Your task to perform on an android device: open app "Duolingo: language lessons" (install if not already installed) and go to login screen Image 0: 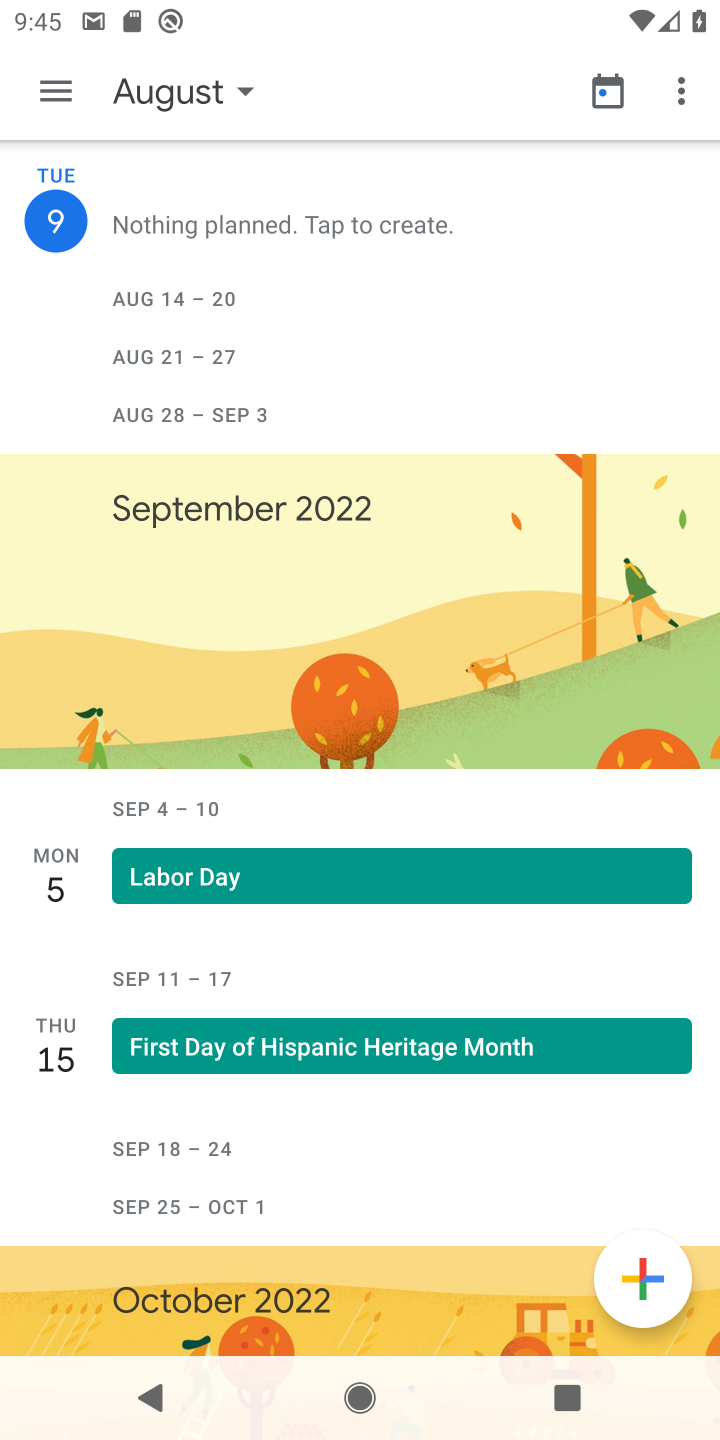
Step 0: press home button
Your task to perform on an android device: open app "Duolingo: language lessons" (install if not already installed) and go to login screen Image 1: 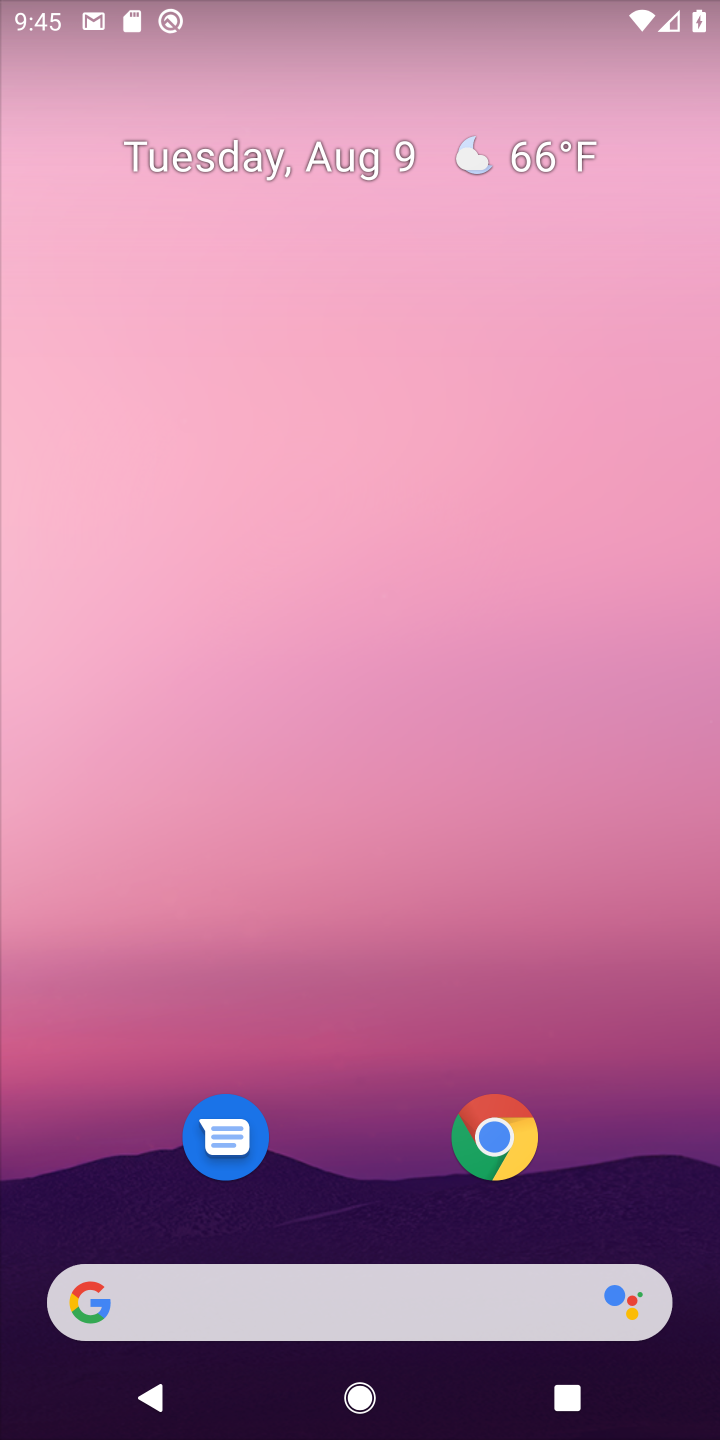
Step 1: drag from (371, 1116) to (354, 346)
Your task to perform on an android device: open app "Duolingo: language lessons" (install if not already installed) and go to login screen Image 2: 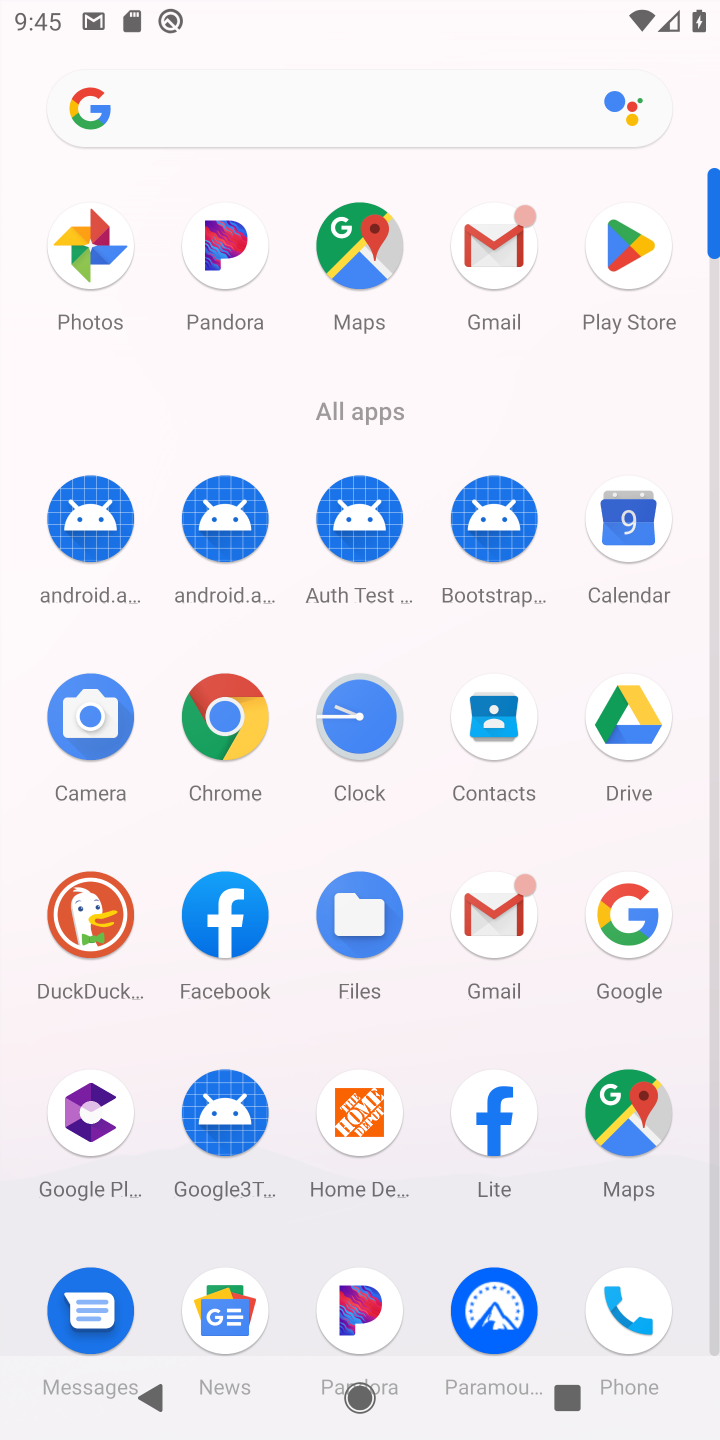
Step 2: click (610, 266)
Your task to perform on an android device: open app "Duolingo: language lessons" (install if not already installed) and go to login screen Image 3: 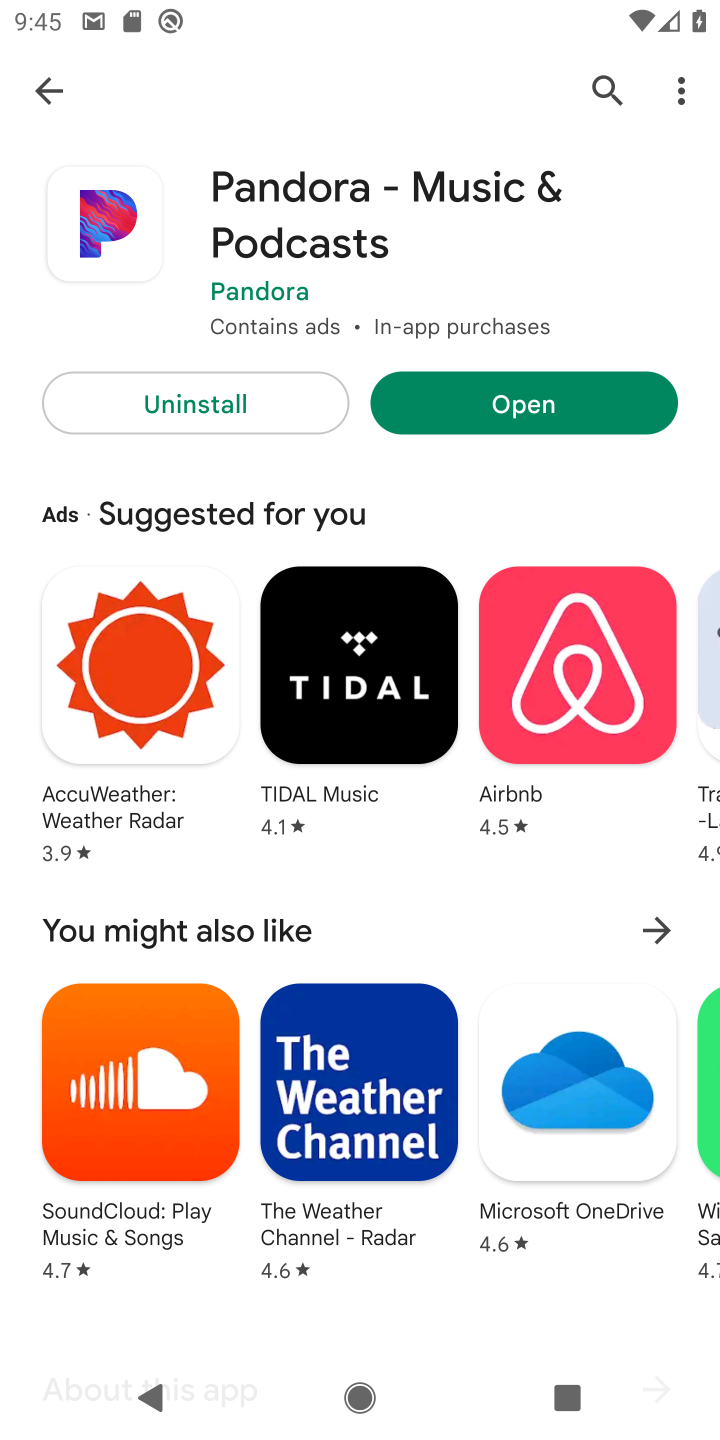
Step 3: click (630, 106)
Your task to perform on an android device: open app "Duolingo: language lessons" (install if not already installed) and go to login screen Image 4: 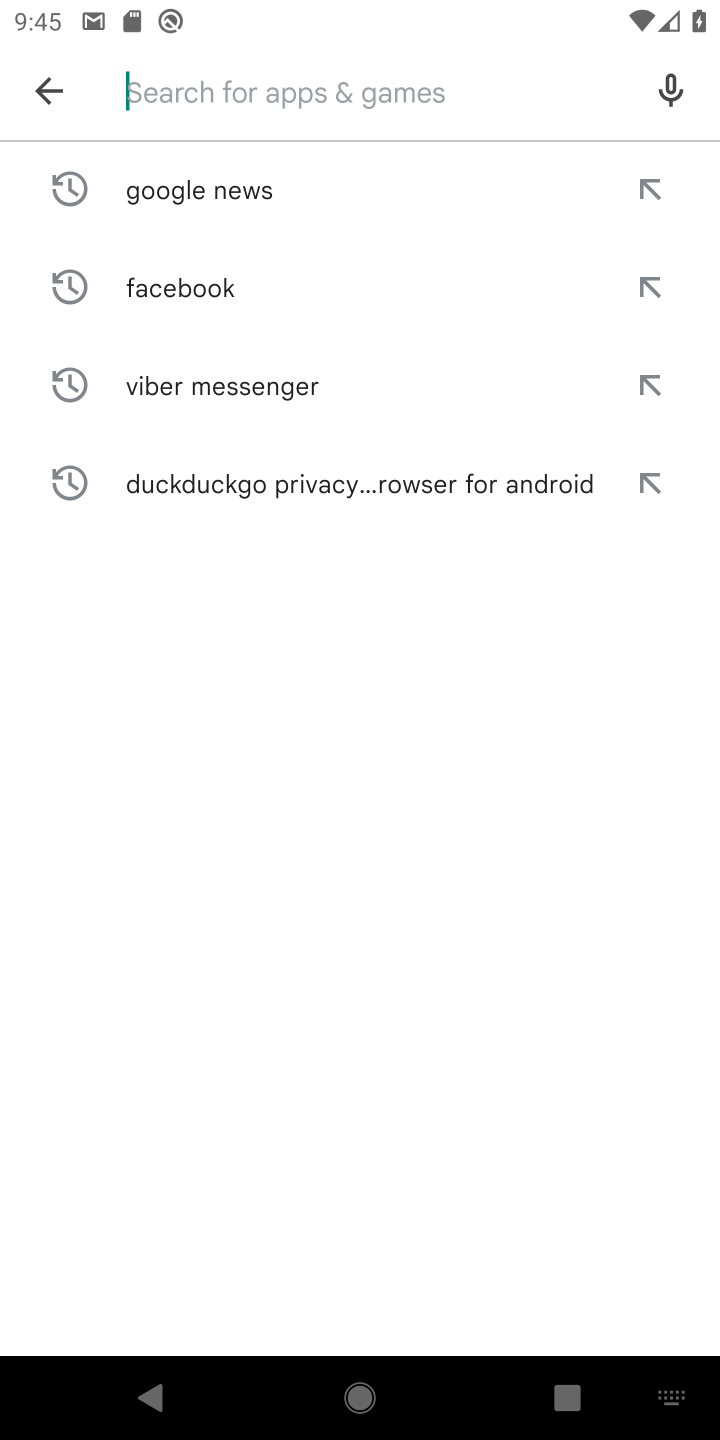
Step 4: type "Duolingo: language lessons"
Your task to perform on an android device: open app "Duolingo: language lessons" (install if not already installed) and go to login screen Image 5: 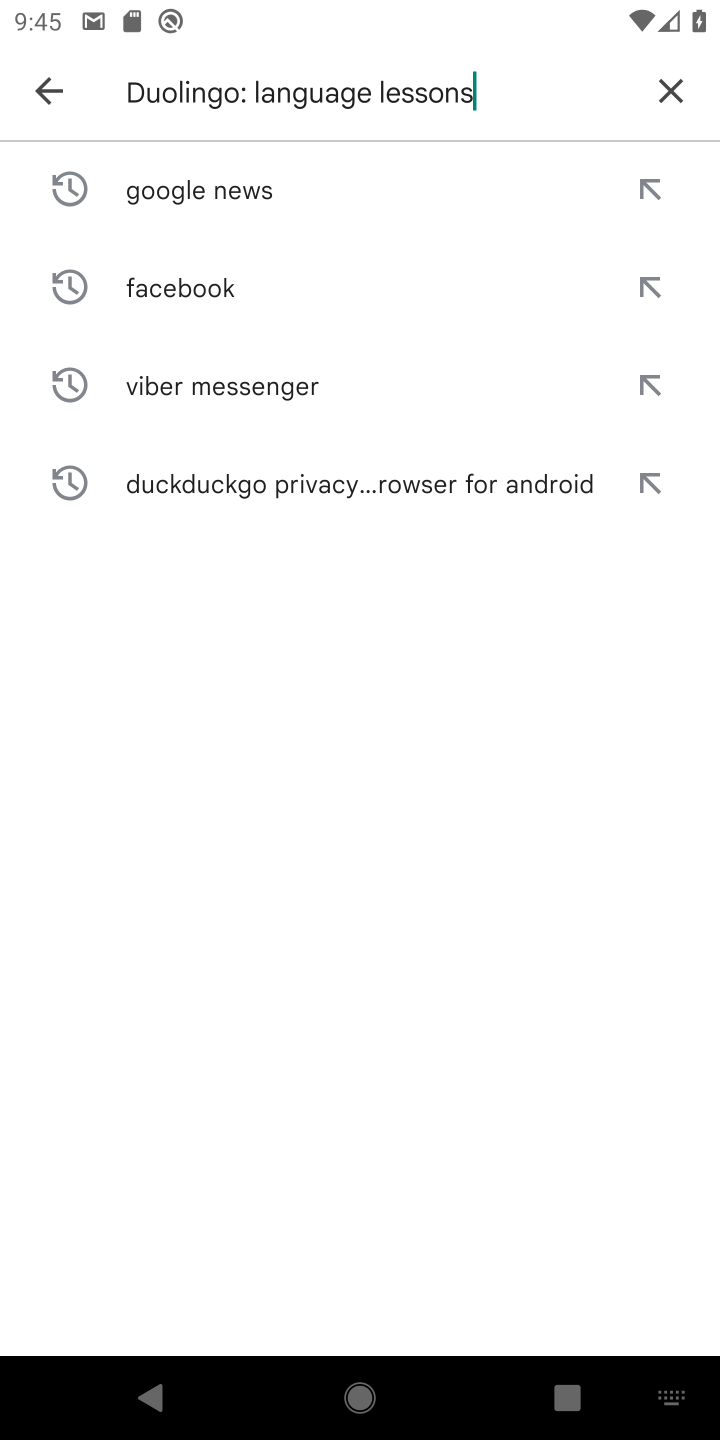
Step 5: type ""
Your task to perform on an android device: open app "Duolingo: language lessons" (install if not already installed) and go to login screen Image 6: 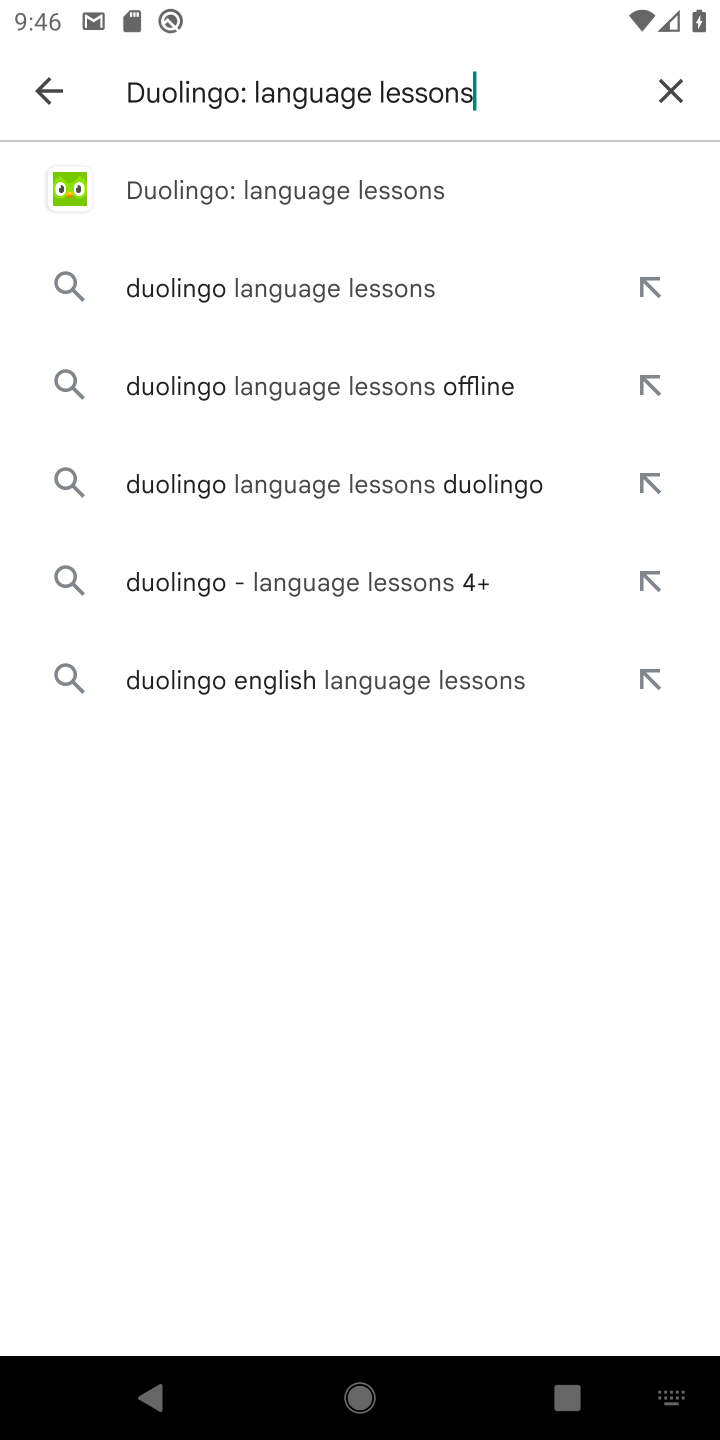
Step 6: click (324, 178)
Your task to perform on an android device: open app "Duolingo: language lessons" (install if not already installed) and go to login screen Image 7: 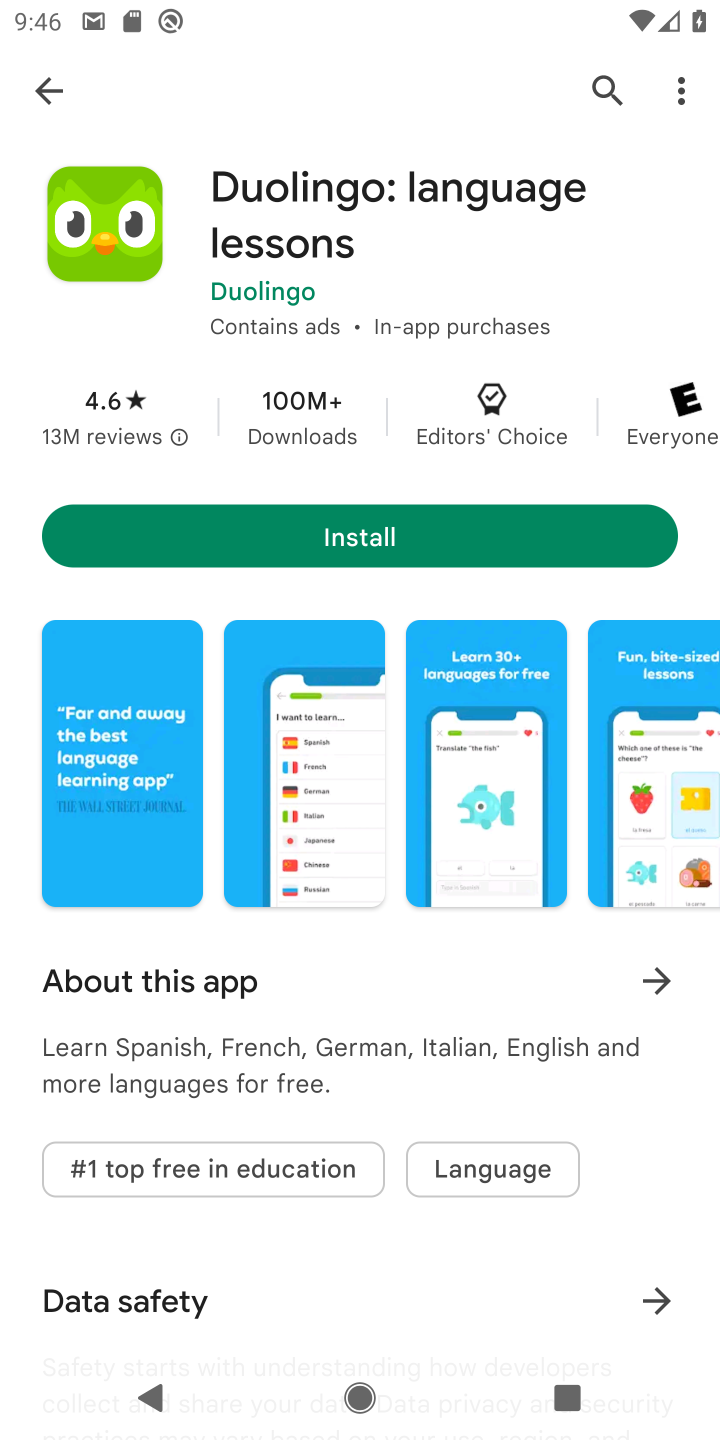
Step 7: click (371, 538)
Your task to perform on an android device: open app "Duolingo: language lessons" (install if not already installed) and go to login screen Image 8: 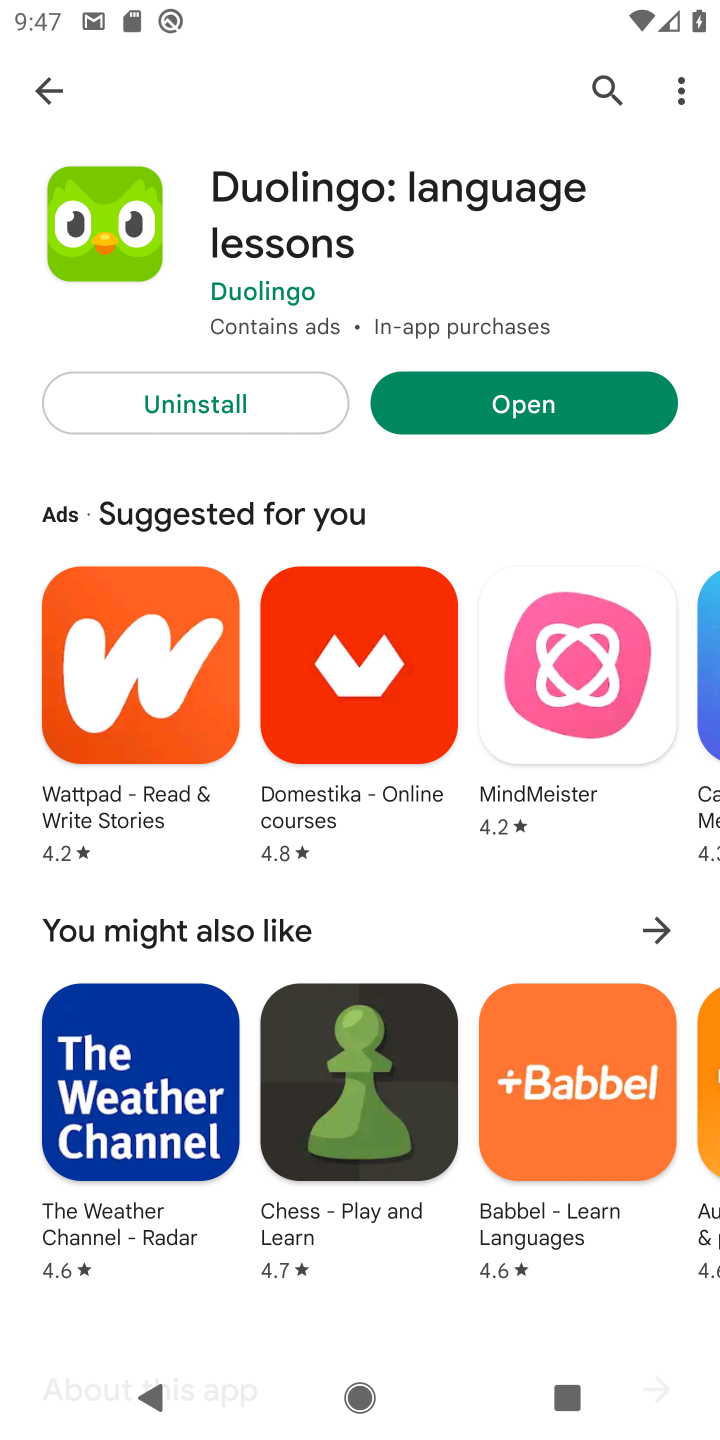
Step 8: click (491, 388)
Your task to perform on an android device: open app "Duolingo: language lessons" (install if not already installed) and go to login screen Image 9: 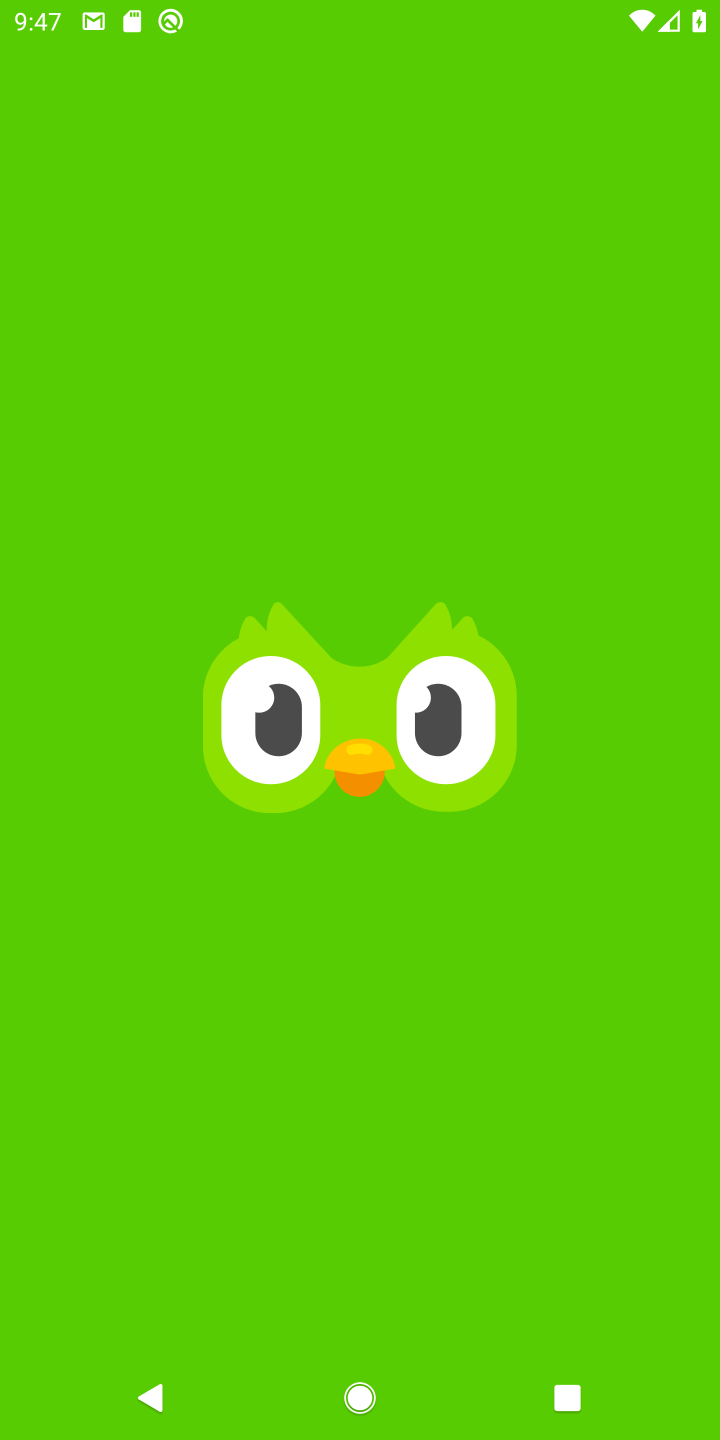
Step 9: task complete